Your task to perform on an android device: Clear the shopping cart on walmart.com. Search for jbl flip 4 on walmart.com, select the first entry, and add it to the cart. Image 0: 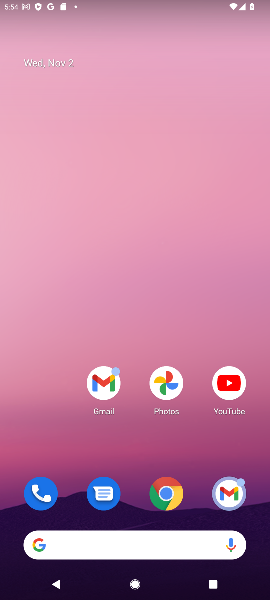
Step 0: drag from (56, 506) to (124, 291)
Your task to perform on an android device: Clear the shopping cart on walmart.com. Search for jbl flip 4 on walmart.com, select the first entry, and add it to the cart. Image 1: 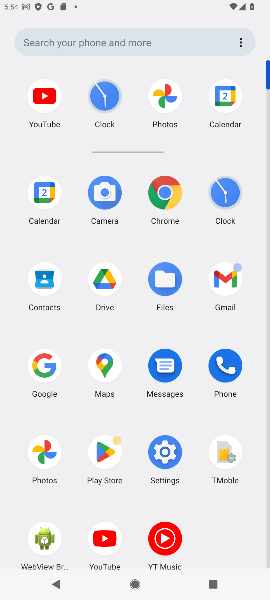
Step 1: click (44, 365)
Your task to perform on an android device: Clear the shopping cart on walmart.com. Search for jbl flip 4 on walmart.com, select the first entry, and add it to the cart. Image 2: 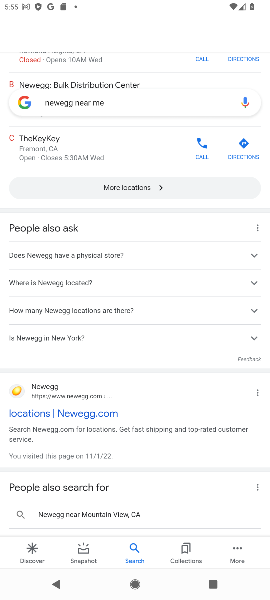
Step 2: click (117, 109)
Your task to perform on an android device: Clear the shopping cart on walmart.com. Search for jbl flip 4 on walmart.com, select the first entry, and add it to the cart. Image 3: 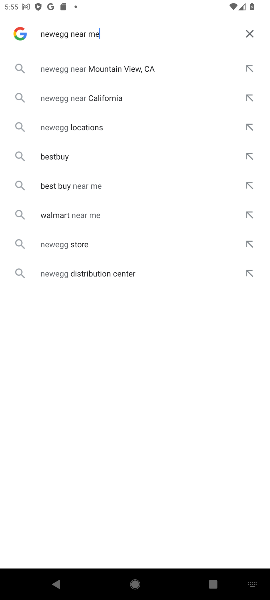
Step 3: click (58, 215)
Your task to perform on an android device: Clear the shopping cart on walmart.com. Search for jbl flip 4 on walmart.com, select the first entry, and add it to the cart. Image 4: 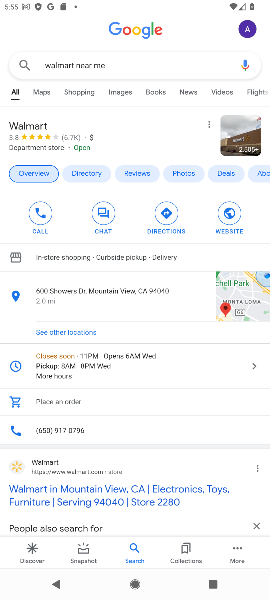
Step 4: click (13, 466)
Your task to perform on an android device: Clear the shopping cart on walmart.com. Search for jbl flip 4 on walmart.com, select the first entry, and add it to the cart. Image 5: 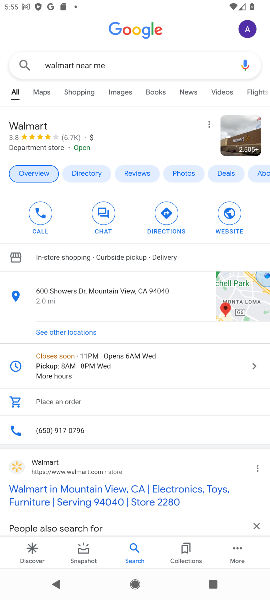
Step 5: click (15, 465)
Your task to perform on an android device: Clear the shopping cart on walmart.com. Search for jbl flip 4 on walmart.com, select the first entry, and add it to the cart. Image 6: 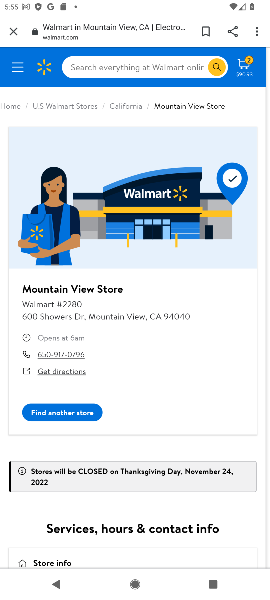
Step 6: click (116, 59)
Your task to perform on an android device: Clear the shopping cart on walmart.com. Search for jbl flip 4 on walmart.com, select the first entry, and add it to the cart. Image 7: 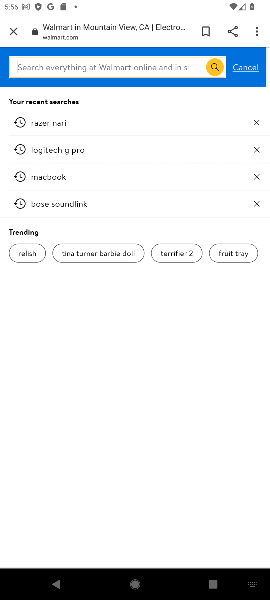
Step 7: click (130, 65)
Your task to perform on an android device: Clear the shopping cart on walmart.com. Search for jbl flip 4 on walmart.com, select the first entry, and add it to the cart. Image 8: 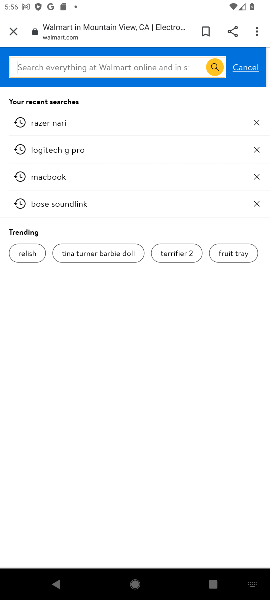
Step 8: type " jbl flip 4  "
Your task to perform on an android device: Clear the shopping cart on walmart.com. Search for jbl flip 4 on walmart.com, select the first entry, and add it to the cart. Image 9: 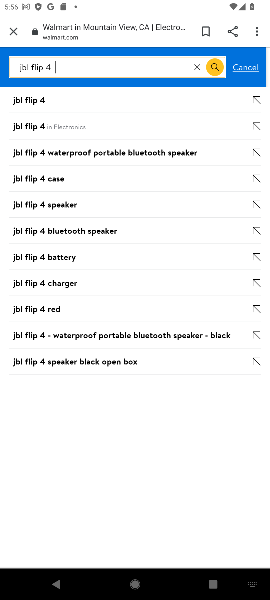
Step 9: click (19, 98)
Your task to perform on an android device: Clear the shopping cart on walmart.com. Search for jbl flip 4 on walmart.com, select the first entry, and add it to the cart. Image 10: 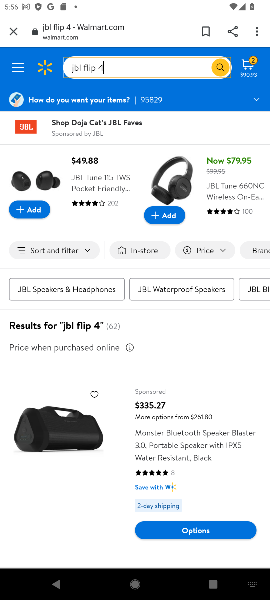
Step 10: drag from (181, 469) to (196, 346)
Your task to perform on an android device: Clear the shopping cart on walmart.com. Search for jbl flip 4 on walmart.com, select the first entry, and add it to the cart. Image 11: 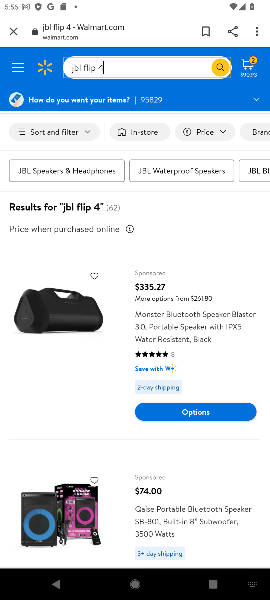
Step 11: drag from (189, 490) to (206, 269)
Your task to perform on an android device: Clear the shopping cart on walmart.com. Search for jbl flip 4 on walmart.com, select the first entry, and add it to the cart. Image 12: 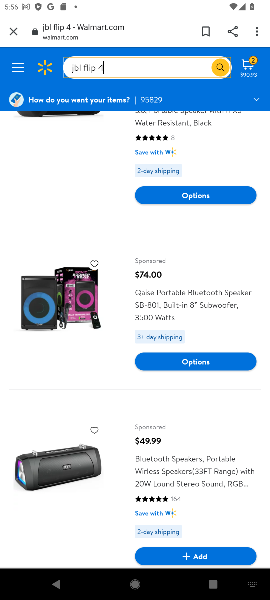
Step 12: click (158, 558)
Your task to perform on an android device: Clear the shopping cart on walmart.com. Search for jbl flip 4 on walmart.com, select the first entry, and add it to the cart. Image 13: 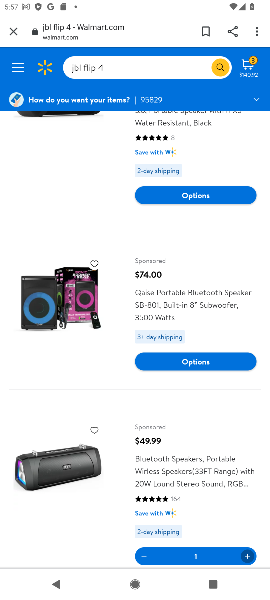
Step 13: task complete